Your task to perform on an android device: Open Youtube and go to the subscriptions tab Image 0: 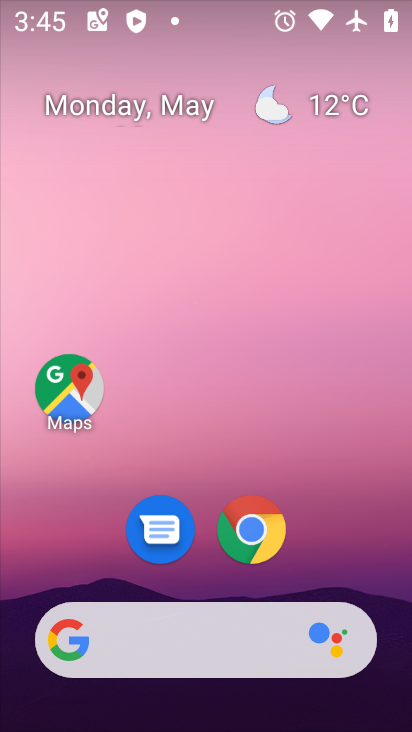
Step 0: drag from (205, 568) to (235, 79)
Your task to perform on an android device: Open Youtube and go to the subscriptions tab Image 1: 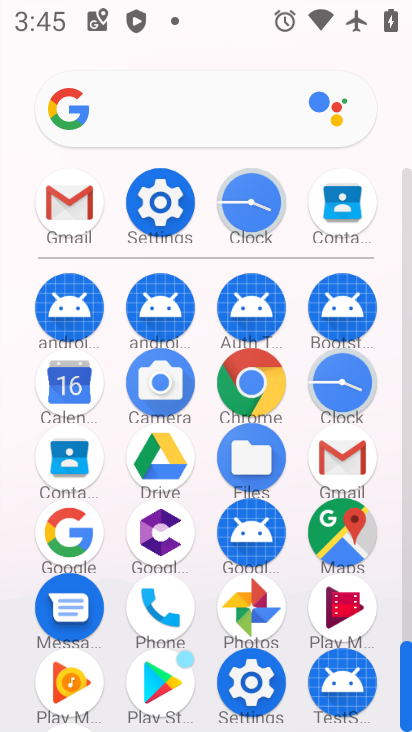
Step 1: drag from (211, 637) to (226, 279)
Your task to perform on an android device: Open Youtube and go to the subscriptions tab Image 2: 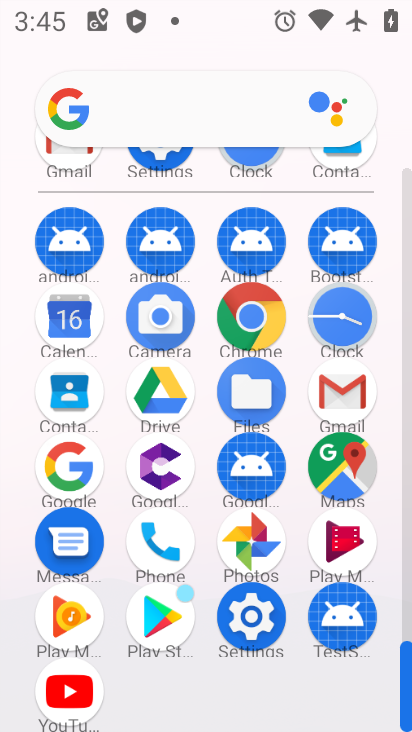
Step 2: click (52, 700)
Your task to perform on an android device: Open Youtube and go to the subscriptions tab Image 3: 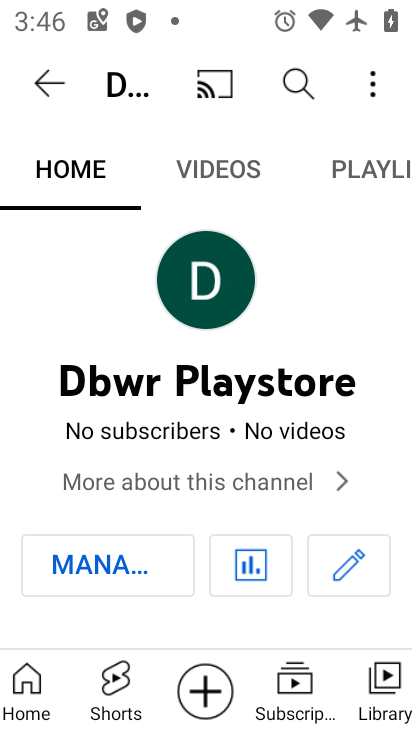
Step 3: click (295, 702)
Your task to perform on an android device: Open Youtube and go to the subscriptions tab Image 4: 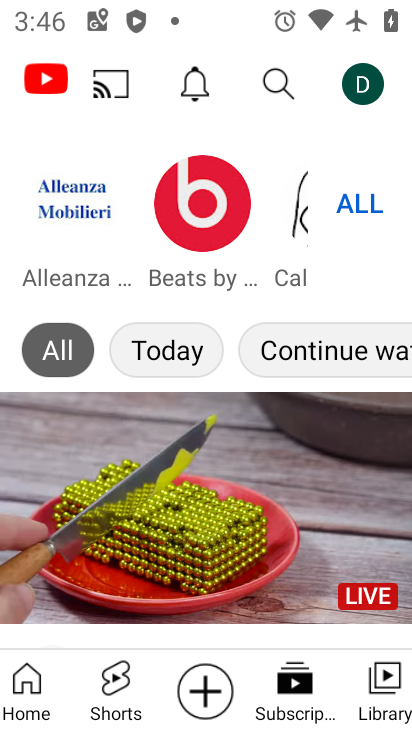
Step 4: task complete